Your task to perform on an android device: open app "Grab" (install if not already installed) Image 0: 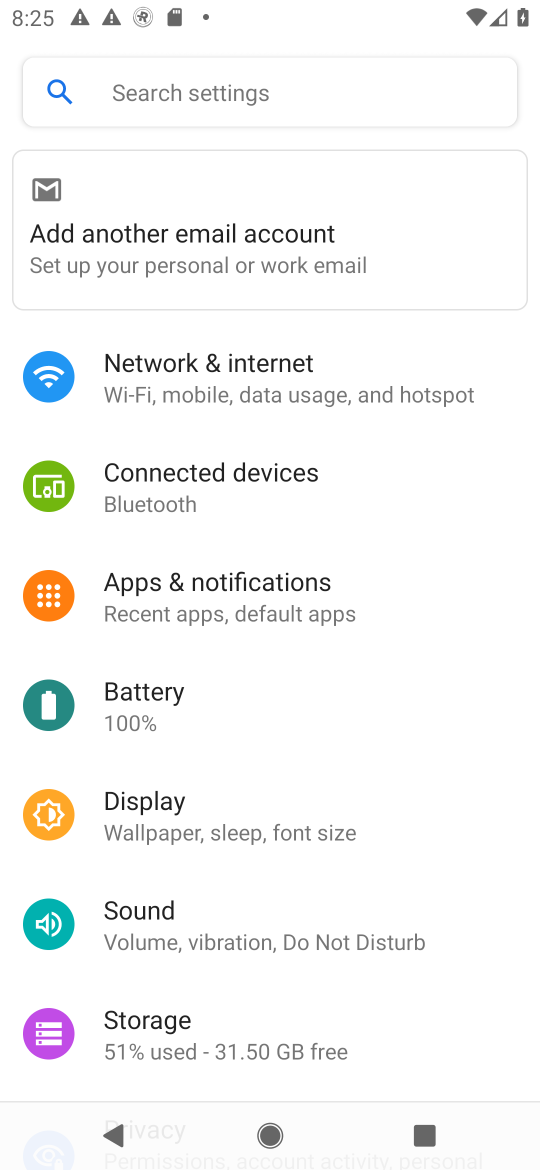
Step 0: press home button
Your task to perform on an android device: open app "Grab" (install if not already installed) Image 1: 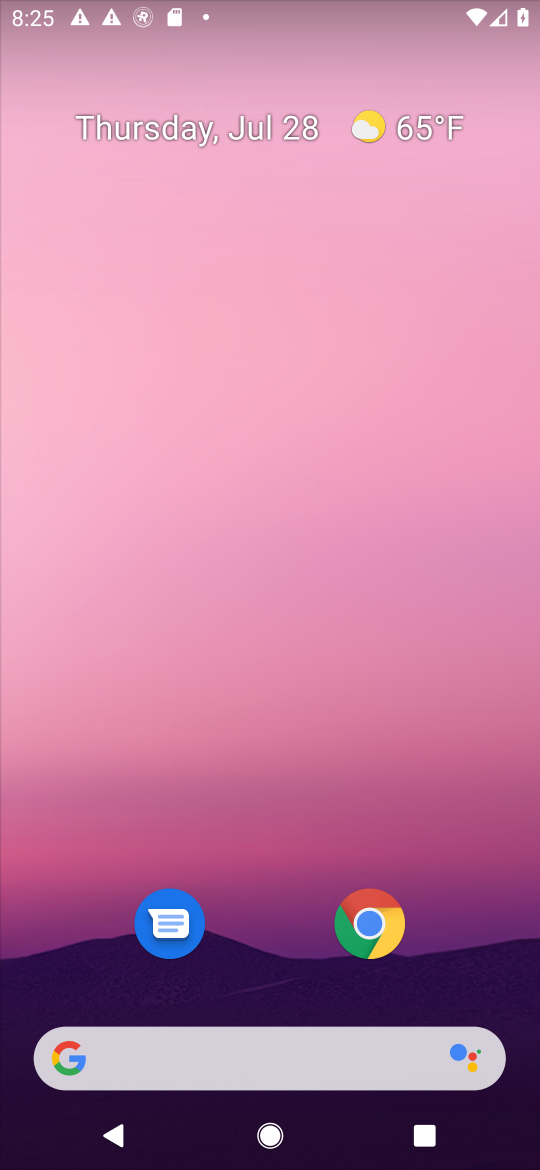
Step 1: drag from (504, 759) to (492, 85)
Your task to perform on an android device: open app "Grab" (install if not already installed) Image 2: 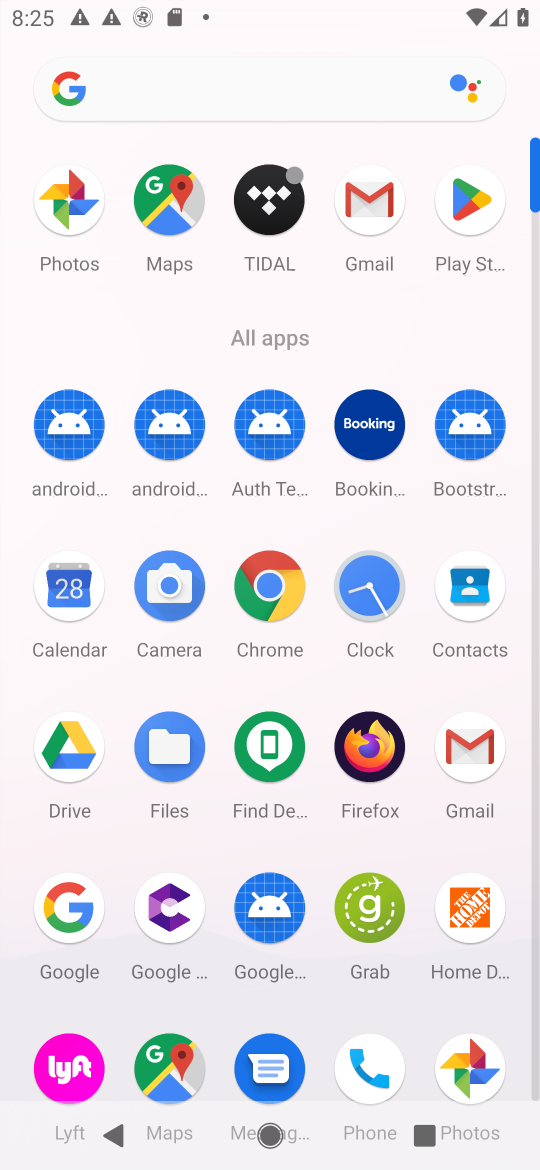
Step 2: click (476, 204)
Your task to perform on an android device: open app "Grab" (install if not already installed) Image 3: 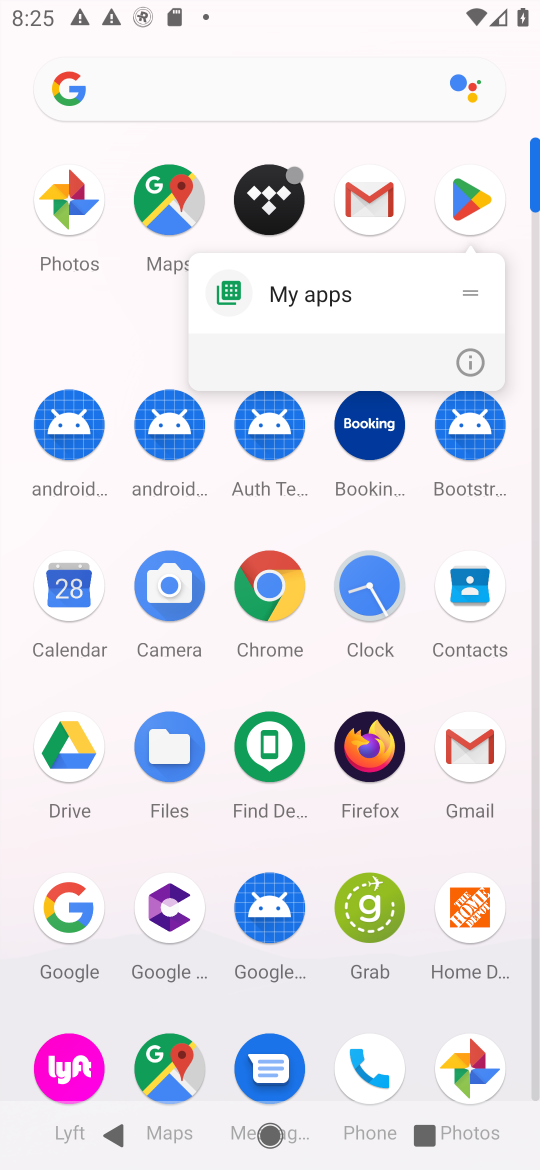
Step 3: click (476, 204)
Your task to perform on an android device: open app "Grab" (install if not already installed) Image 4: 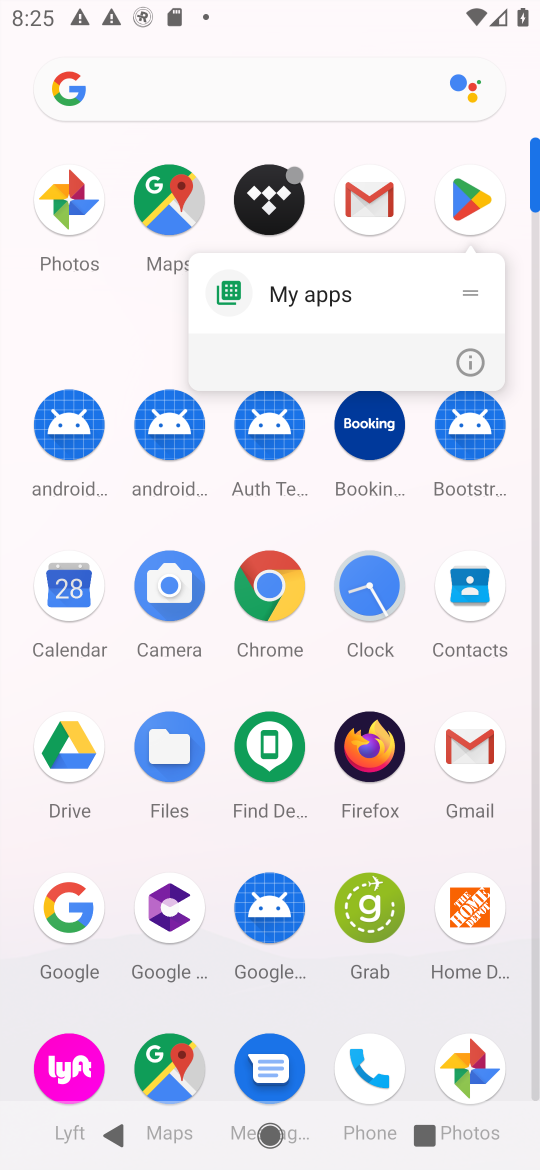
Step 4: click (471, 164)
Your task to perform on an android device: open app "Grab" (install if not already installed) Image 5: 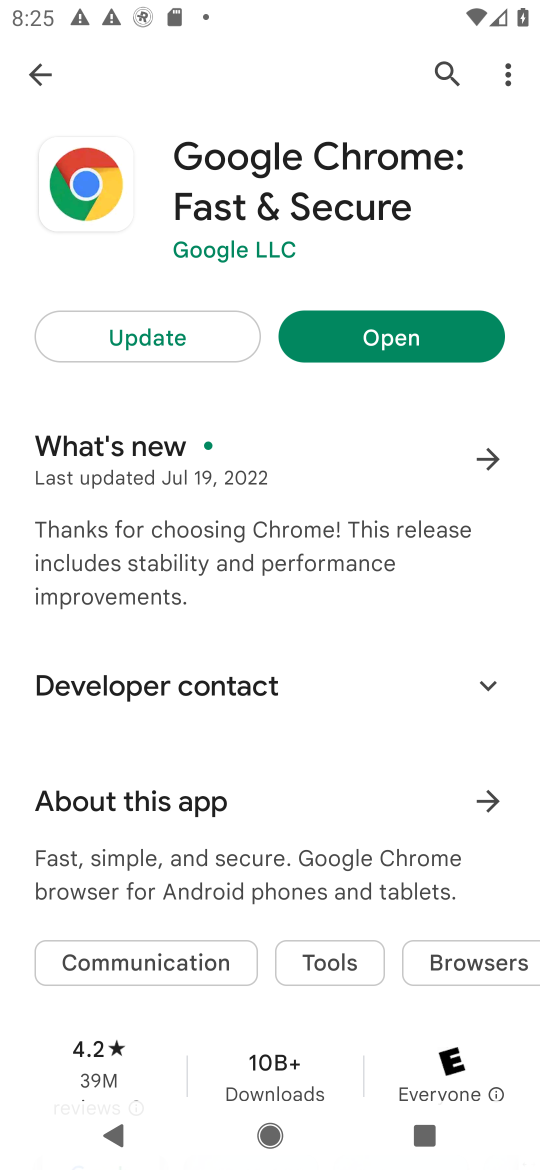
Step 5: click (455, 74)
Your task to perform on an android device: open app "Grab" (install if not already installed) Image 6: 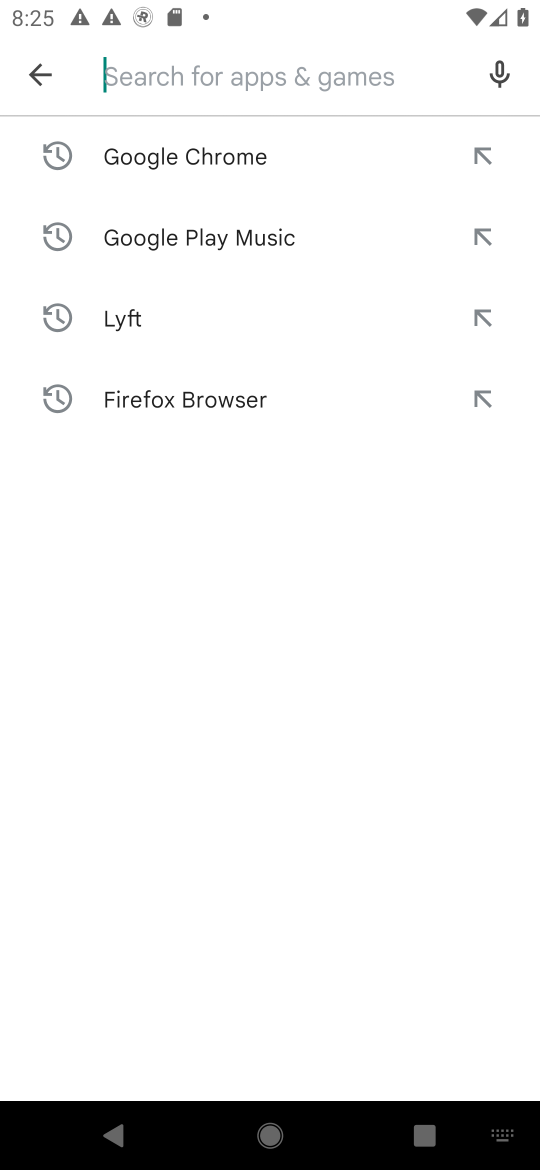
Step 6: type "Grab"
Your task to perform on an android device: open app "Grab" (install if not already installed) Image 7: 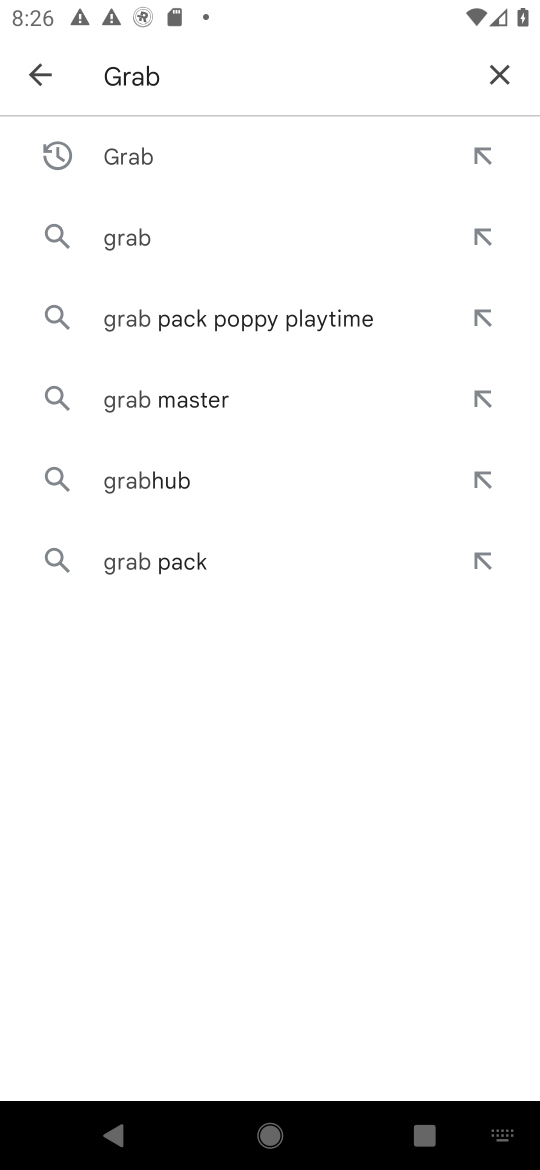
Step 7: click (158, 151)
Your task to perform on an android device: open app "Grab" (install if not already installed) Image 8: 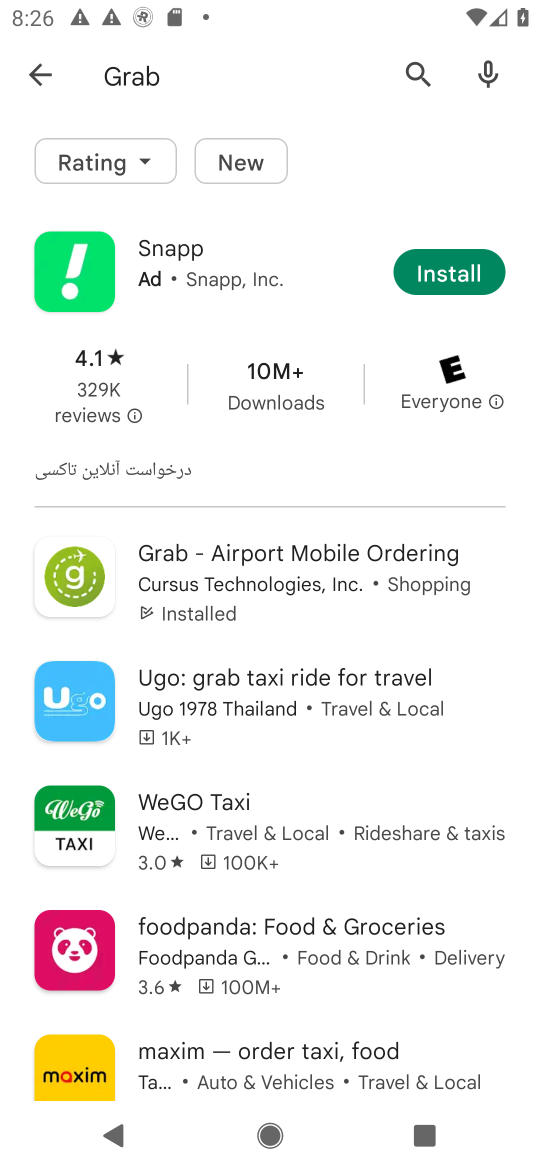
Step 8: click (261, 592)
Your task to perform on an android device: open app "Grab" (install if not already installed) Image 9: 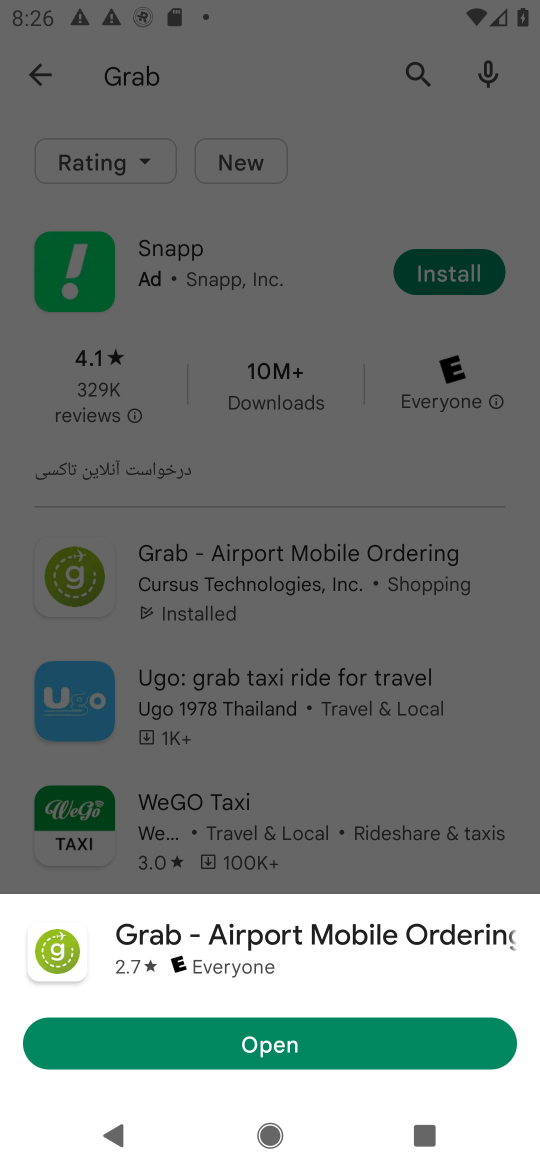
Step 9: click (373, 1052)
Your task to perform on an android device: open app "Grab" (install if not already installed) Image 10: 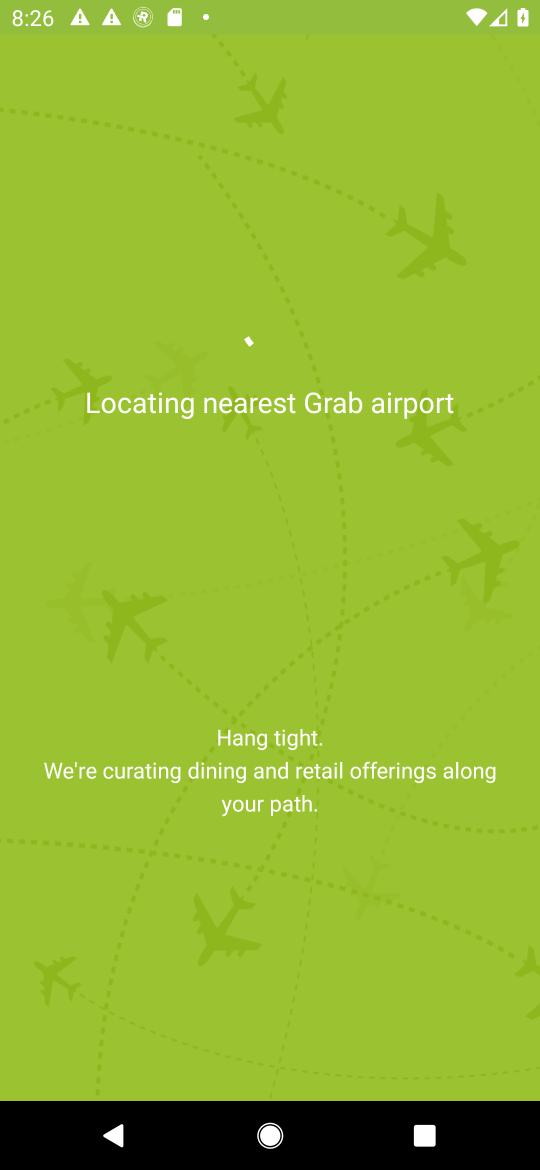
Step 10: task complete